Your task to perform on an android device: Go to ESPN.com Image 0: 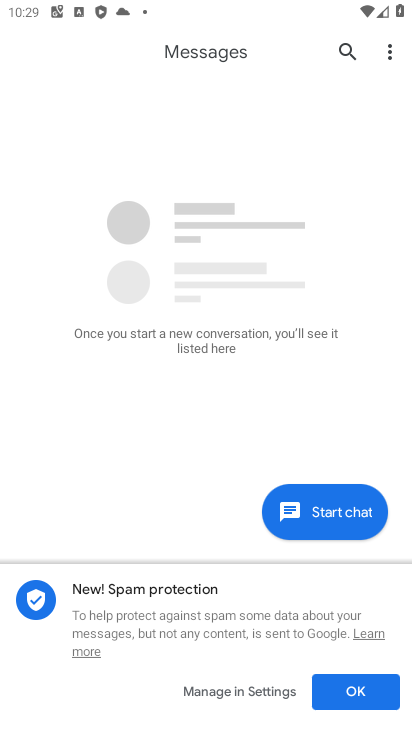
Step 0: press home button
Your task to perform on an android device: Go to ESPN.com Image 1: 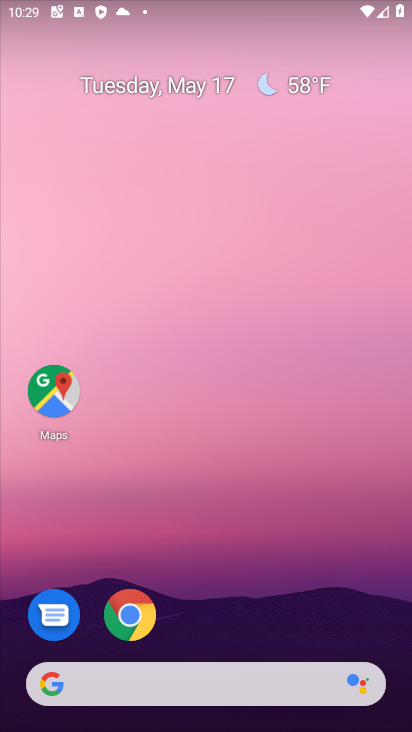
Step 1: click (137, 619)
Your task to perform on an android device: Go to ESPN.com Image 2: 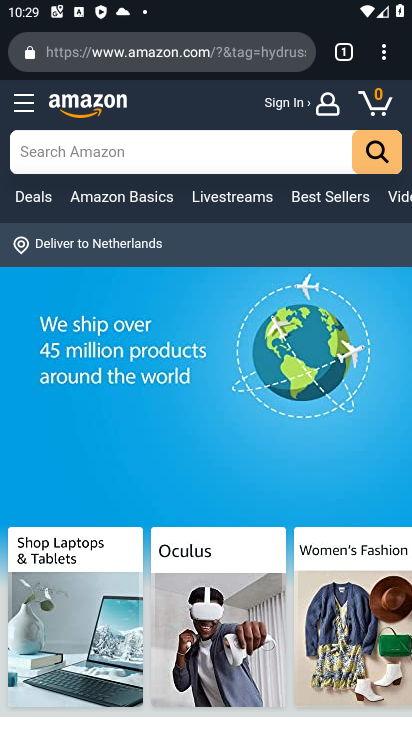
Step 2: click (153, 48)
Your task to perform on an android device: Go to ESPN.com Image 3: 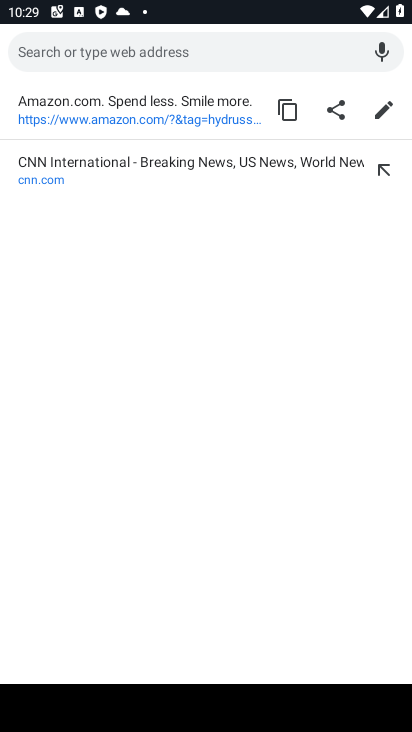
Step 3: type "espn"
Your task to perform on an android device: Go to ESPN.com Image 4: 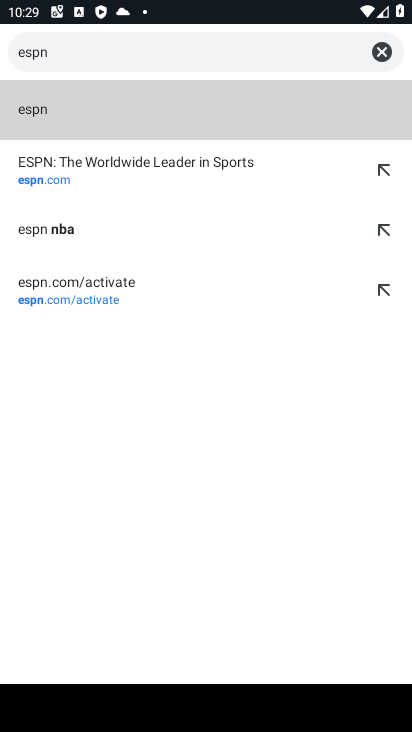
Step 4: click (54, 159)
Your task to perform on an android device: Go to ESPN.com Image 5: 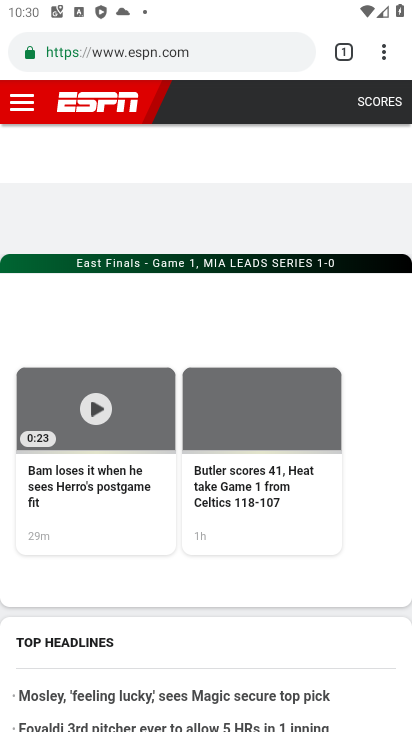
Step 5: task complete